Your task to perform on an android device: Open battery settings Image 0: 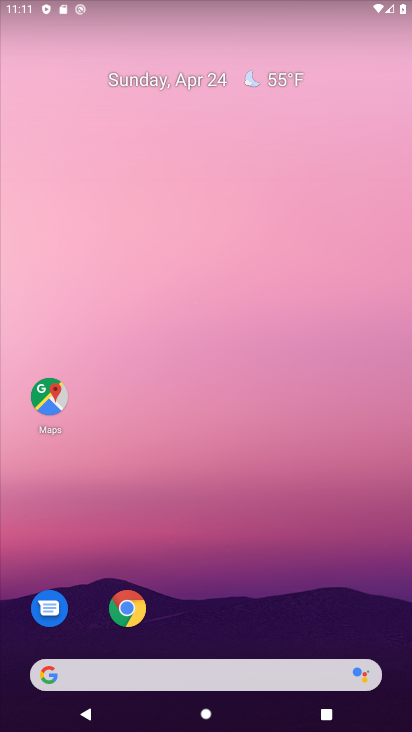
Step 0: drag from (195, 577) to (241, 39)
Your task to perform on an android device: Open battery settings Image 1: 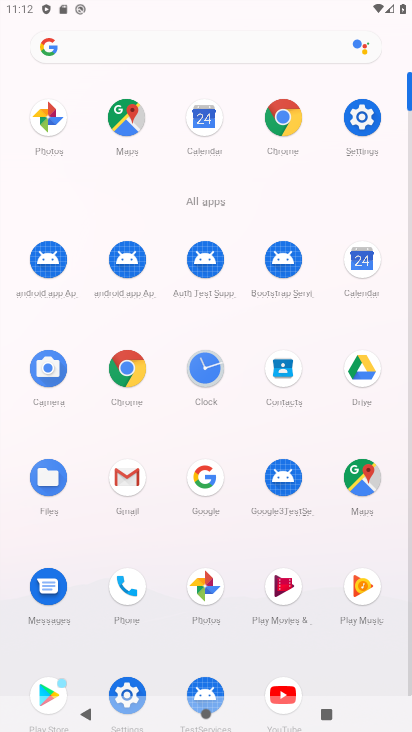
Step 1: click (364, 123)
Your task to perform on an android device: Open battery settings Image 2: 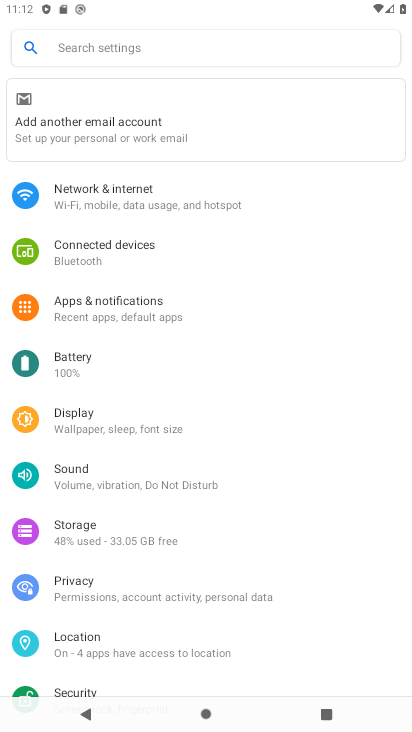
Step 2: click (87, 351)
Your task to perform on an android device: Open battery settings Image 3: 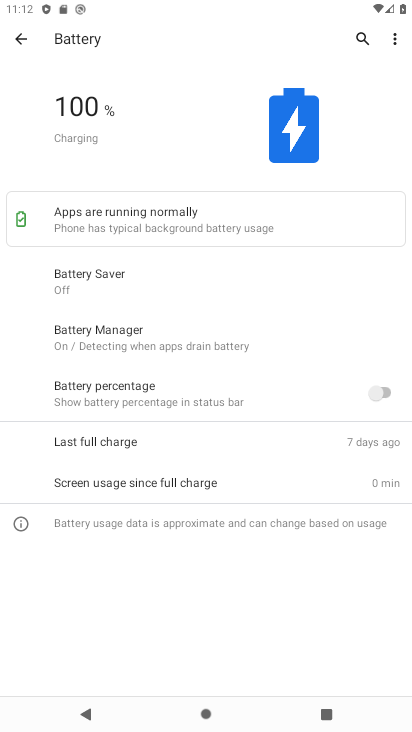
Step 3: task complete